Your task to perform on an android device: Go to ESPN.com Image 0: 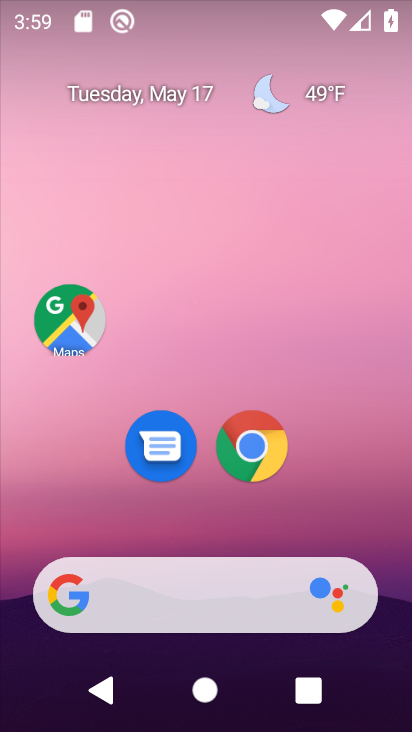
Step 0: click (254, 449)
Your task to perform on an android device: Go to ESPN.com Image 1: 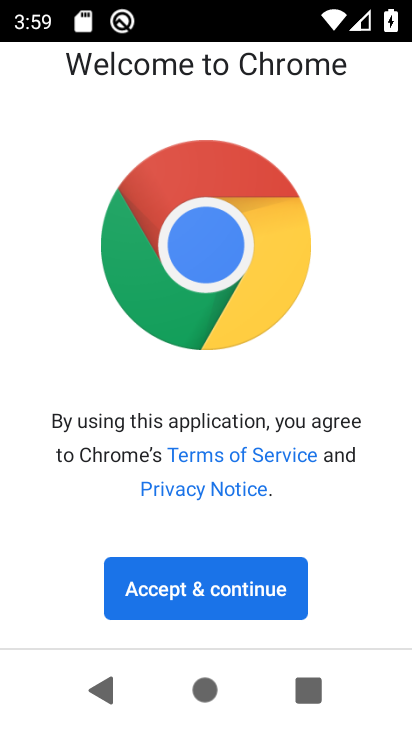
Step 1: click (265, 596)
Your task to perform on an android device: Go to ESPN.com Image 2: 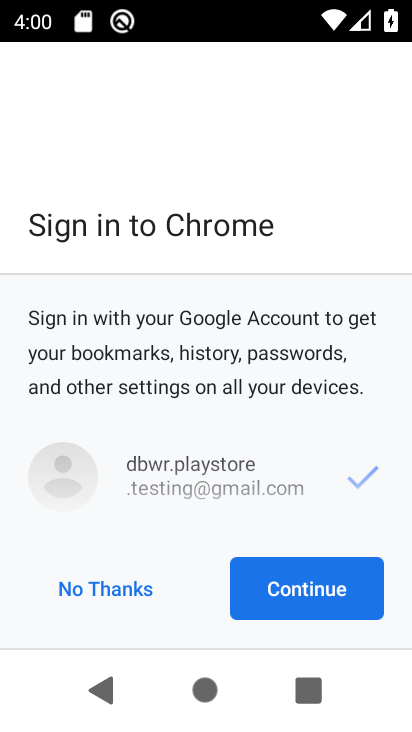
Step 2: click (311, 597)
Your task to perform on an android device: Go to ESPN.com Image 3: 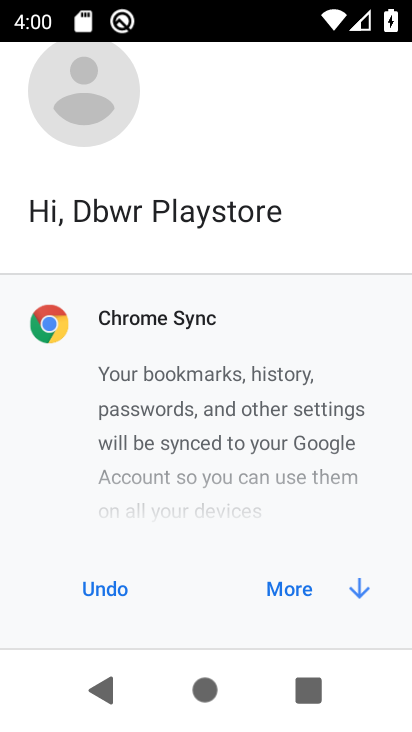
Step 3: click (301, 597)
Your task to perform on an android device: Go to ESPN.com Image 4: 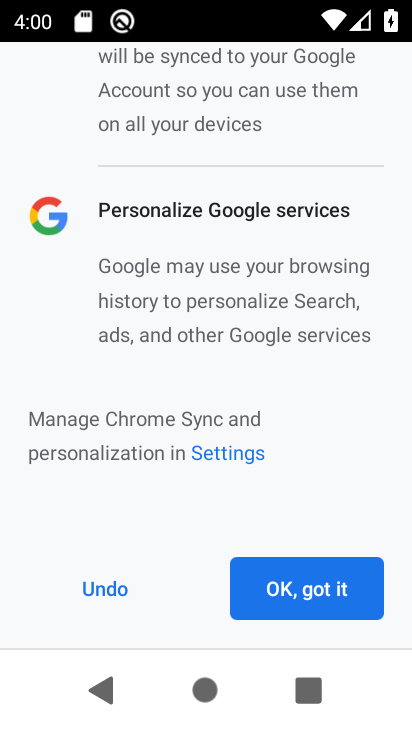
Step 4: click (301, 597)
Your task to perform on an android device: Go to ESPN.com Image 5: 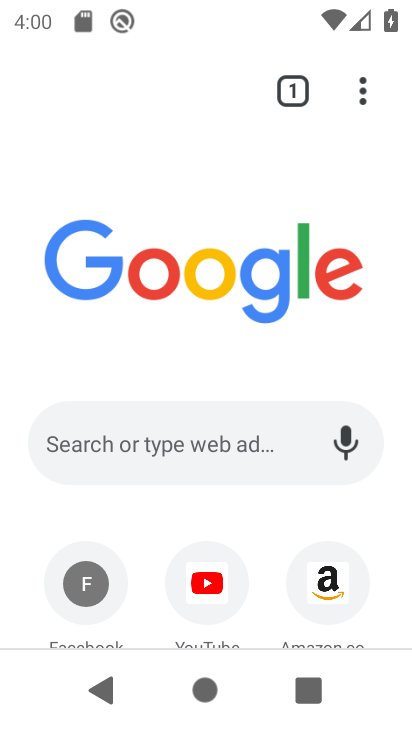
Step 5: click (189, 447)
Your task to perform on an android device: Go to ESPN.com Image 6: 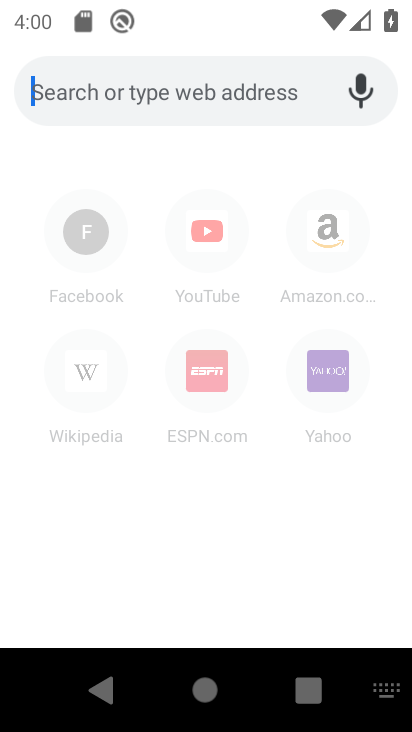
Step 6: type "ESPN.com"
Your task to perform on an android device: Go to ESPN.com Image 7: 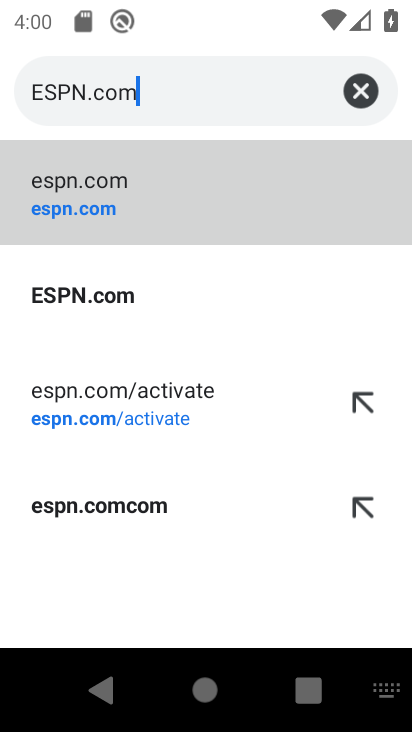
Step 7: click (193, 211)
Your task to perform on an android device: Go to ESPN.com Image 8: 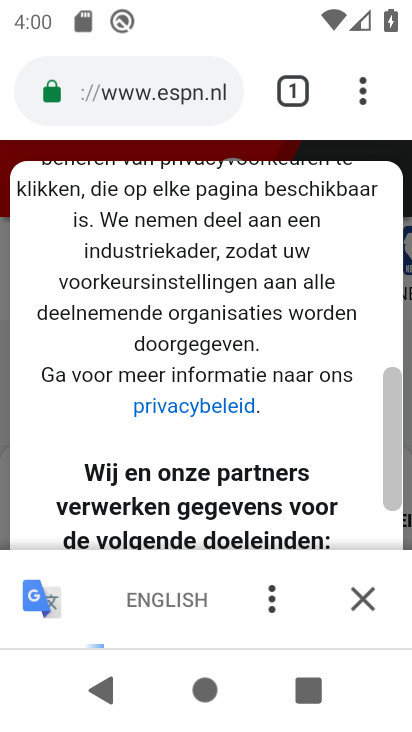
Step 8: click (183, 606)
Your task to perform on an android device: Go to ESPN.com Image 9: 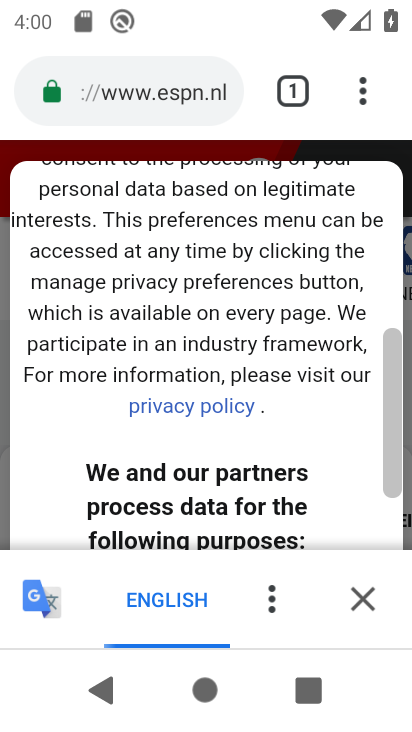
Step 9: click (358, 605)
Your task to perform on an android device: Go to ESPN.com Image 10: 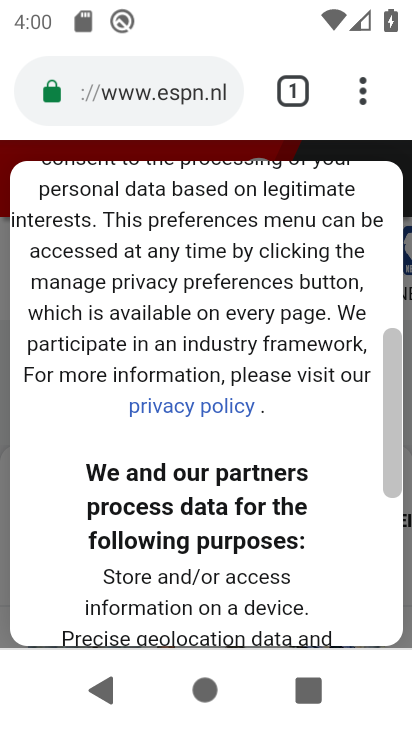
Step 10: drag from (125, 571) to (262, 226)
Your task to perform on an android device: Go to ESPN.com Image 11: 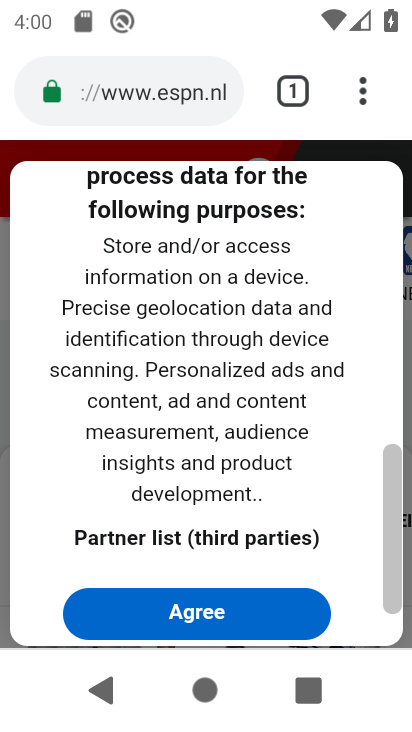
Step 11: click (238, 610)
Your task to perform on an android device: Go to ESPN.com Image 12: 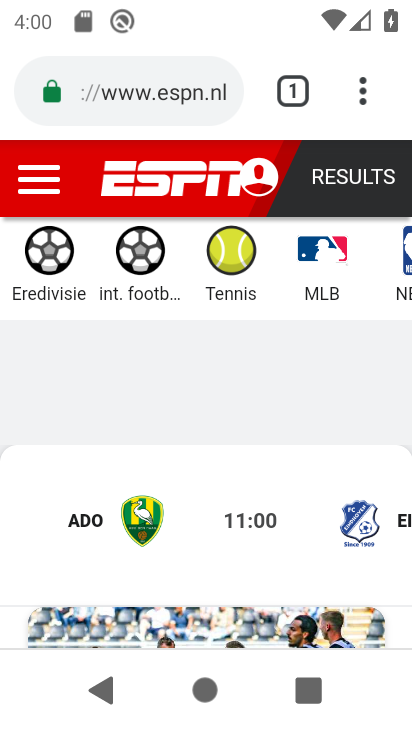
Step 12: task complete